Your task to perform on an android device: read, delete, or share a saved page in the chrome app Image 0: 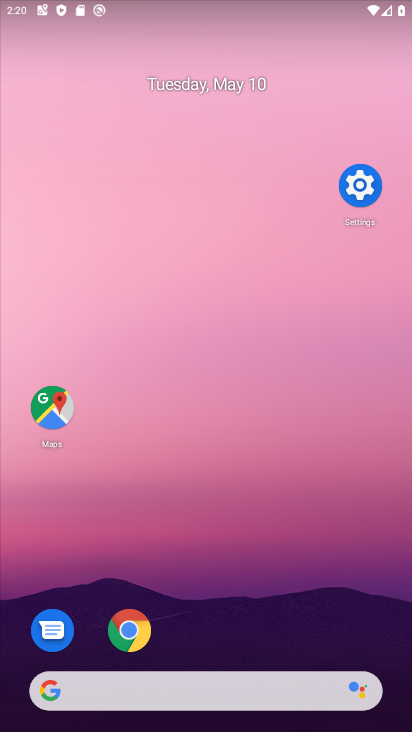
Step 0: drag from (361, 651) to (305, 188)
Your task to perform on an android device: read, delete, or share a saved page in the chrome app Image 1: 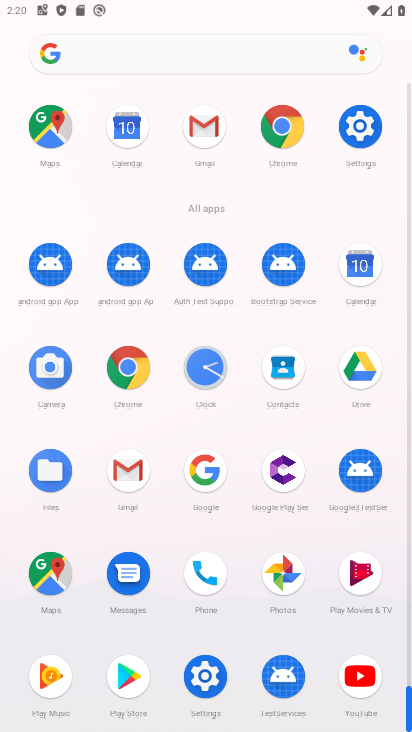
Step 1: click (274, 125)
Your task to perform on an android device: read, delete, or share a saved page in the chrome app Image 2: 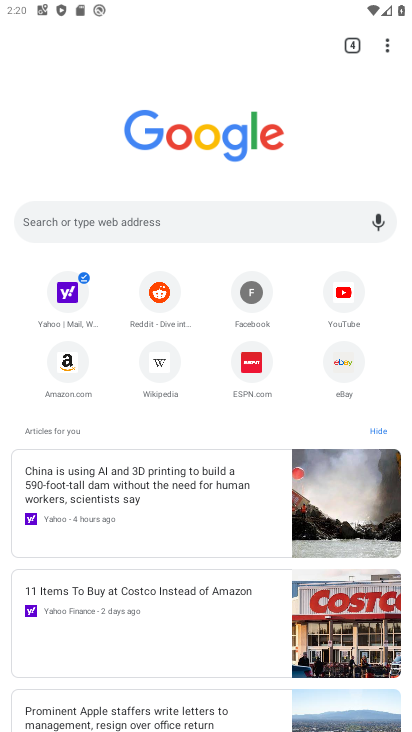
Step 2: drag from (385, 48) to (221, 338)
Your task to perform on an android device: read, delete, or share a saved page in the chrome app Image 3: 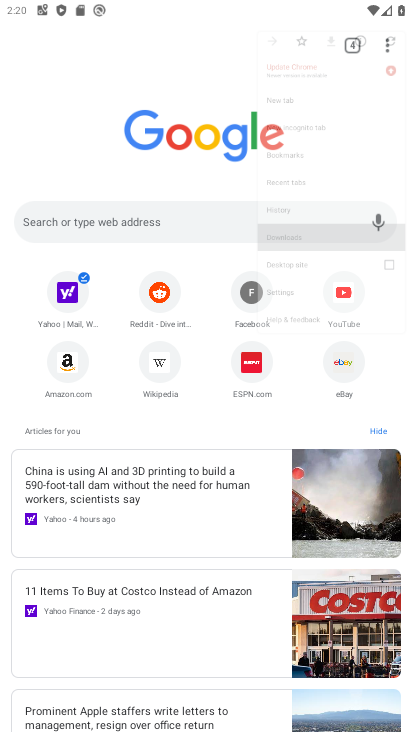
Step 3: click (221, 337)
Your task to perform on an android device: read, delete, or share a saved page in the chrome app Image 4: 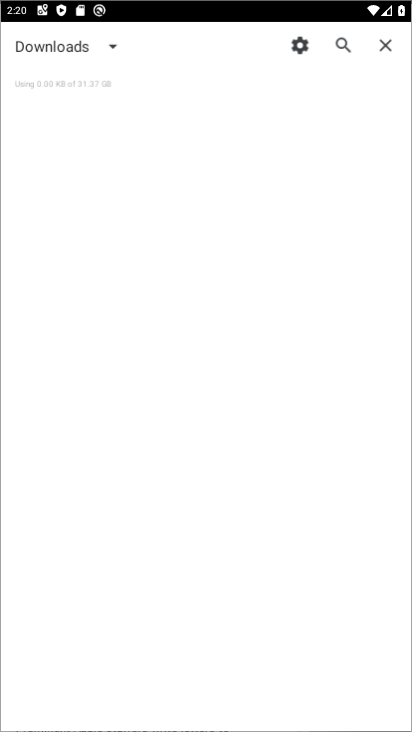
Step 4: click (221, 337)
Your task to perform on an android device: read, delete, or share a saved page in the chrome app Image 5: 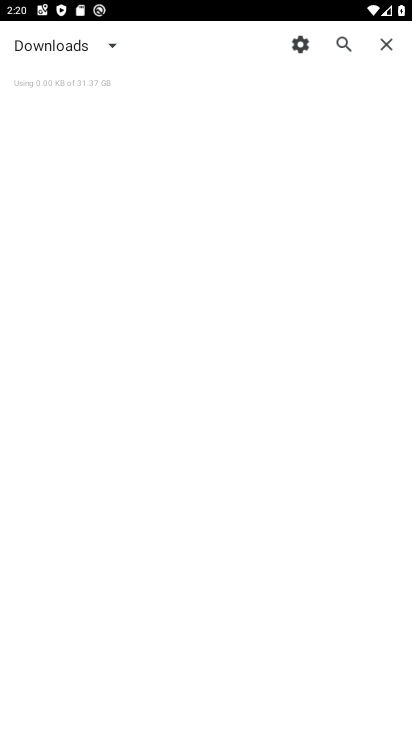
Step 5: click (110, 30)
Your task to perform on an android device: read, delete, or share a saved page in the chrome app Image 6: 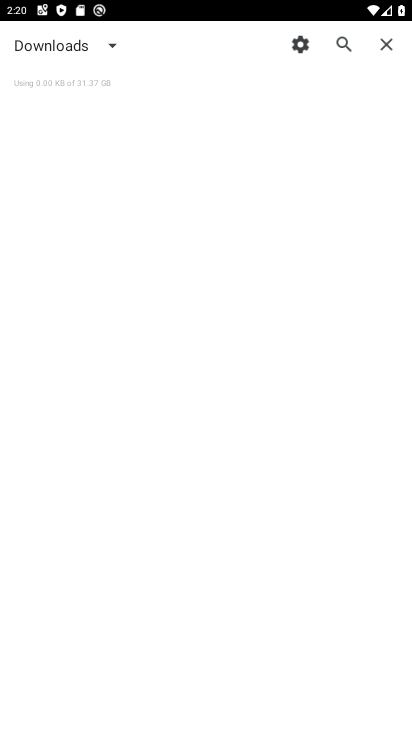
Step 6: click (111, 39)
Your task to perform on an android device: read, delete, or share a saved page in the chrome app Image 7: 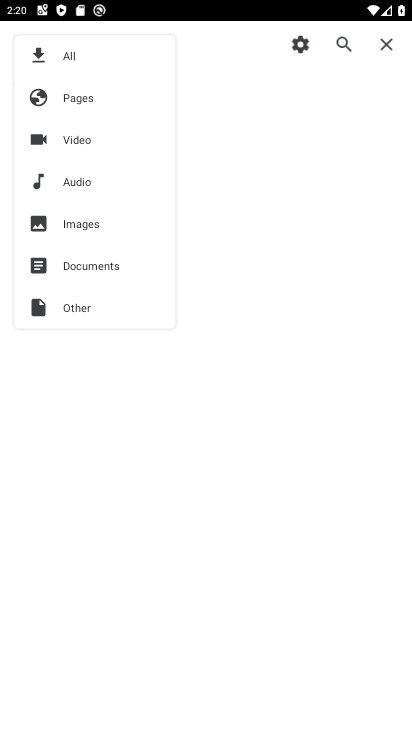
Step 7: click (80, 129)
Your task to perform on an android device: read, delete, or share a saved page in the chrome app Image 8: 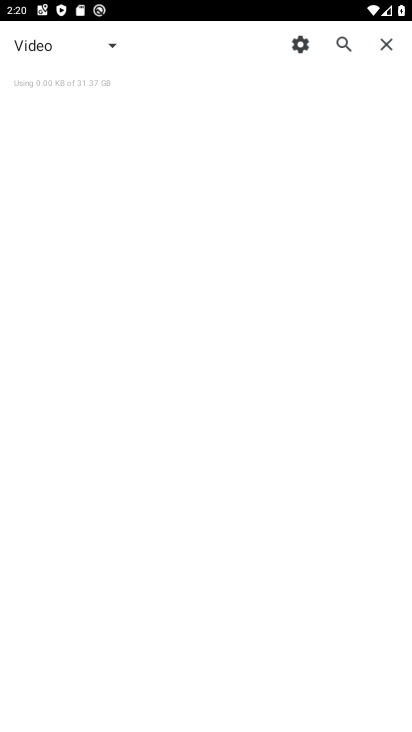
Step 8: task complete